Your task to perform on an android device: Add "dell xps" to the cart on target.com Image 0: 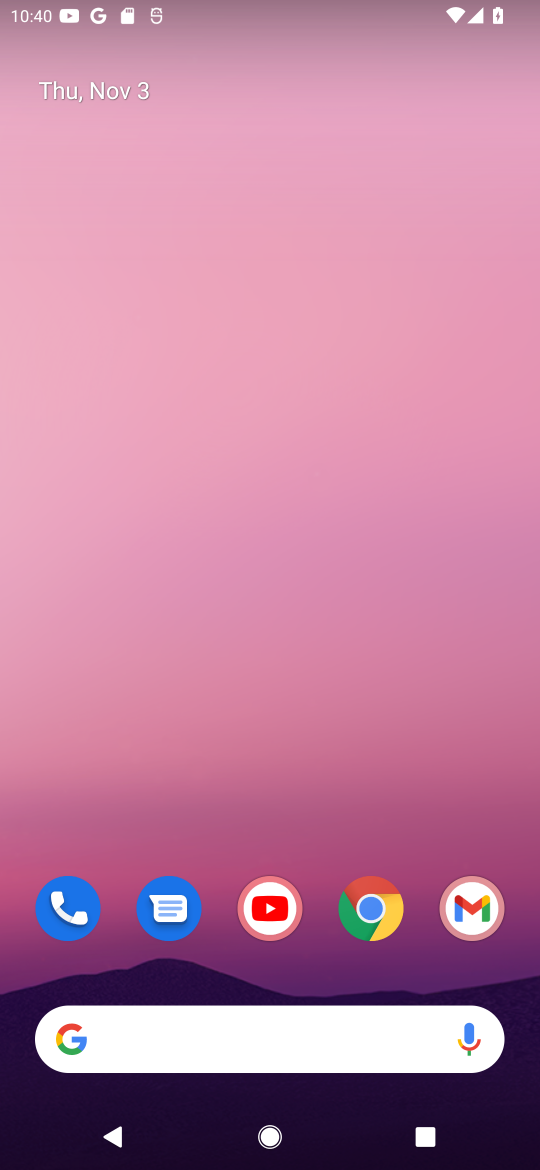
Step 0: click (358, 901)
Your task to perform on an android device: Add "dell xps" to the cart on target.com Image 1: 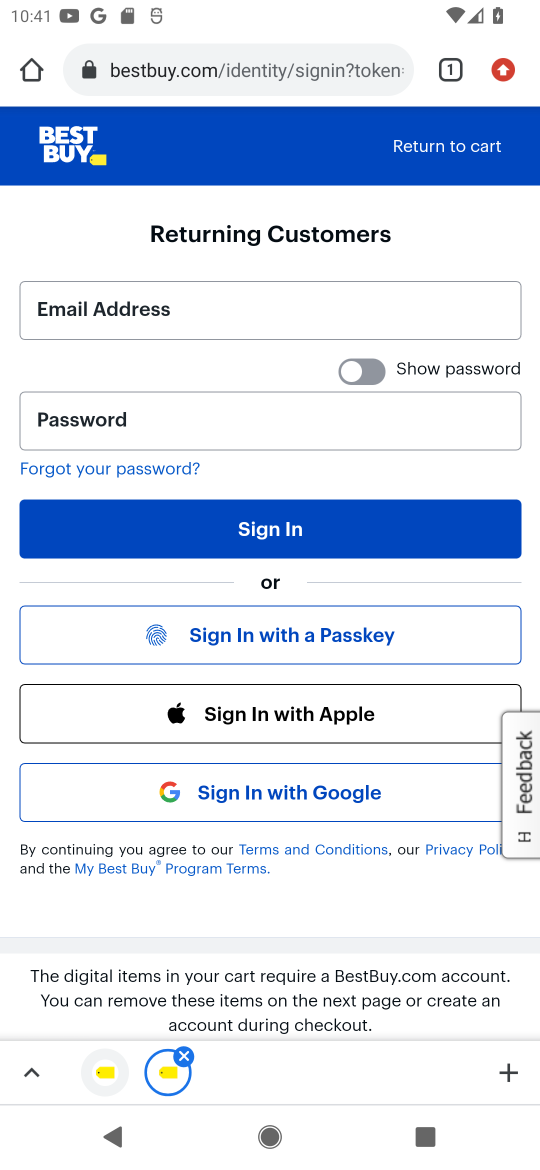
Step 1: click (336, 61)
Your task to perform on an android device: Add "dell xps" to the cart on target.com Image 2: 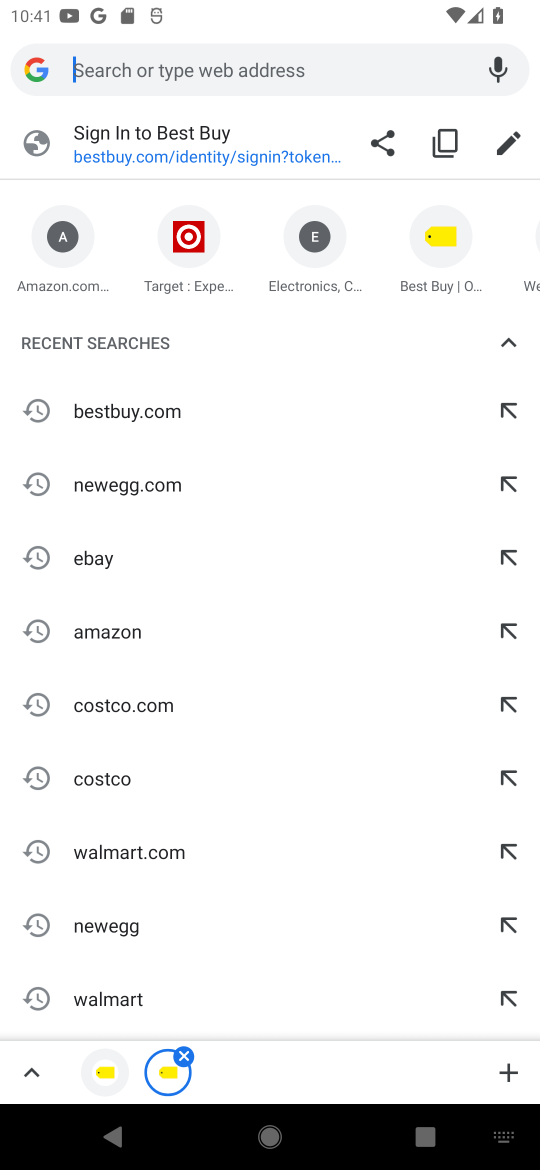
Step 2: click (187, 256)
Your task to perform on an android device: Add "dell xps" to the cart on target.com Image 3: 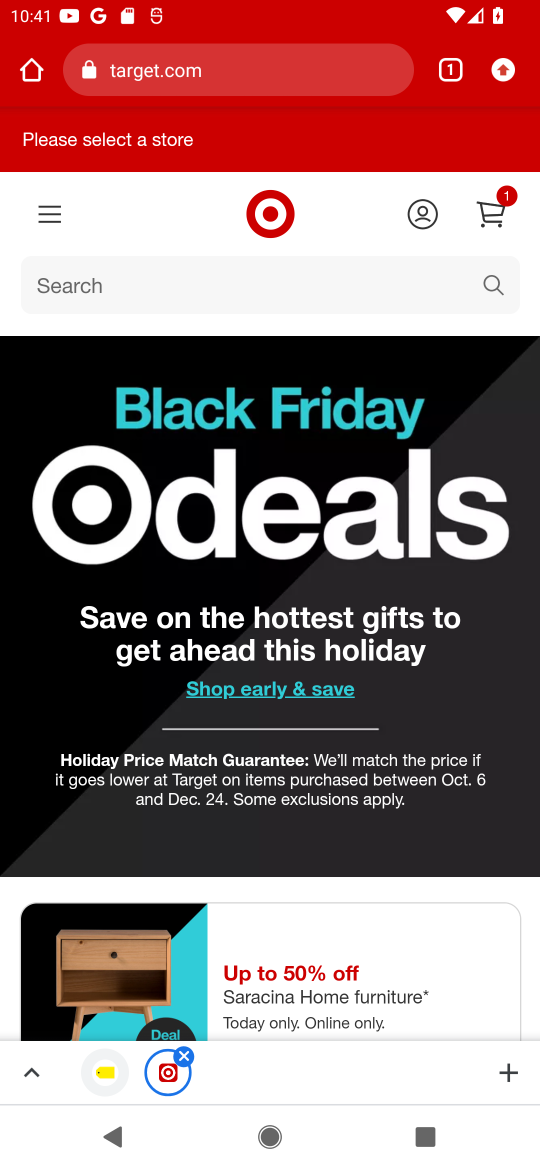
Step 3: click (487, 282)
Your task to perform on an android device: Add "dell xps" to the cart on target.com Image 4: 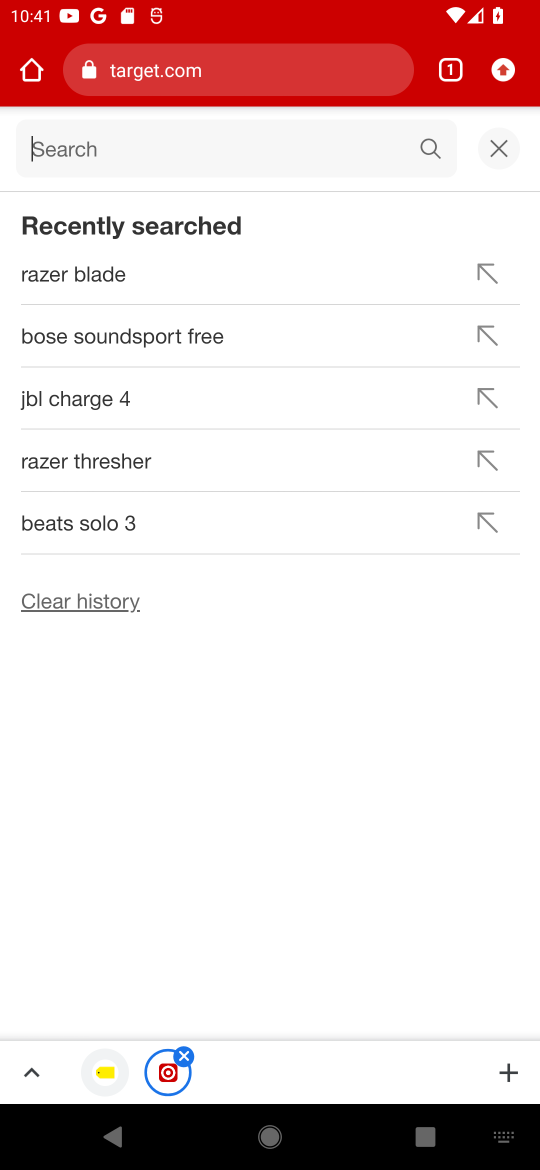
Step 4: type "dell xps"
Your task to perform on an android device: Add "dell xps" to the cart on target.com Image 5: 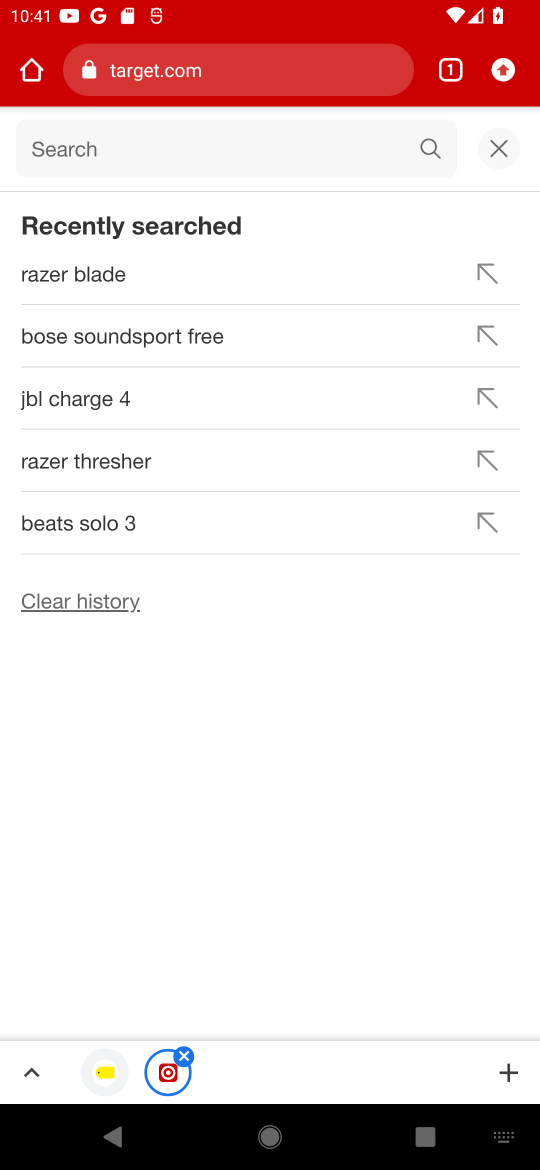
Step 5: press enter
Your task to perform on an android device: Add "dell xps" to the cart on target.com Image 6: 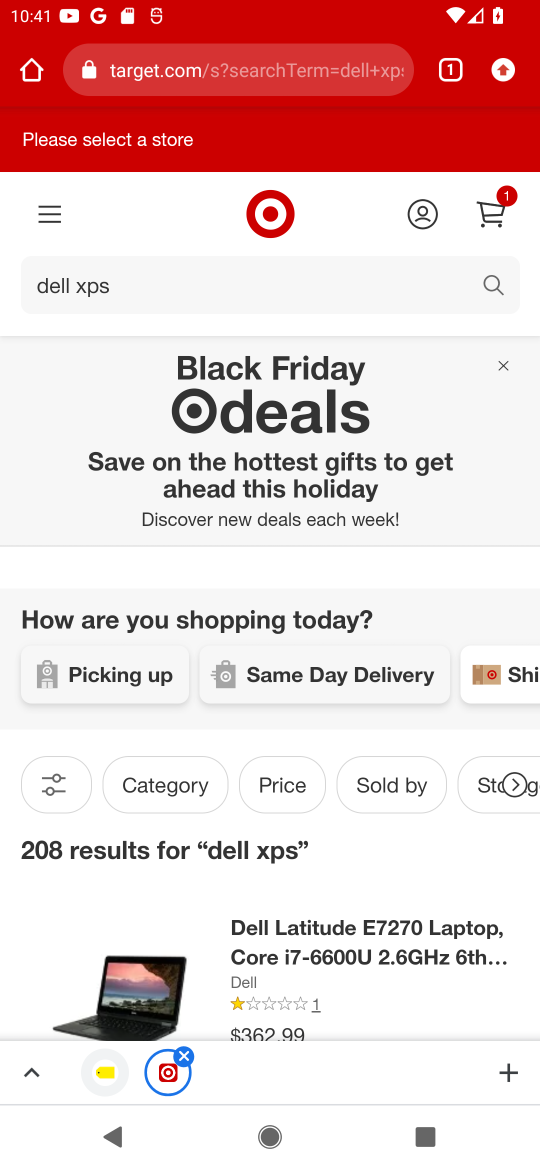
Step 6: drag from (358, 904) to (425, 331)
Your task to perform on an android device: Add "dell xps" to the cart on target.com Image 7: 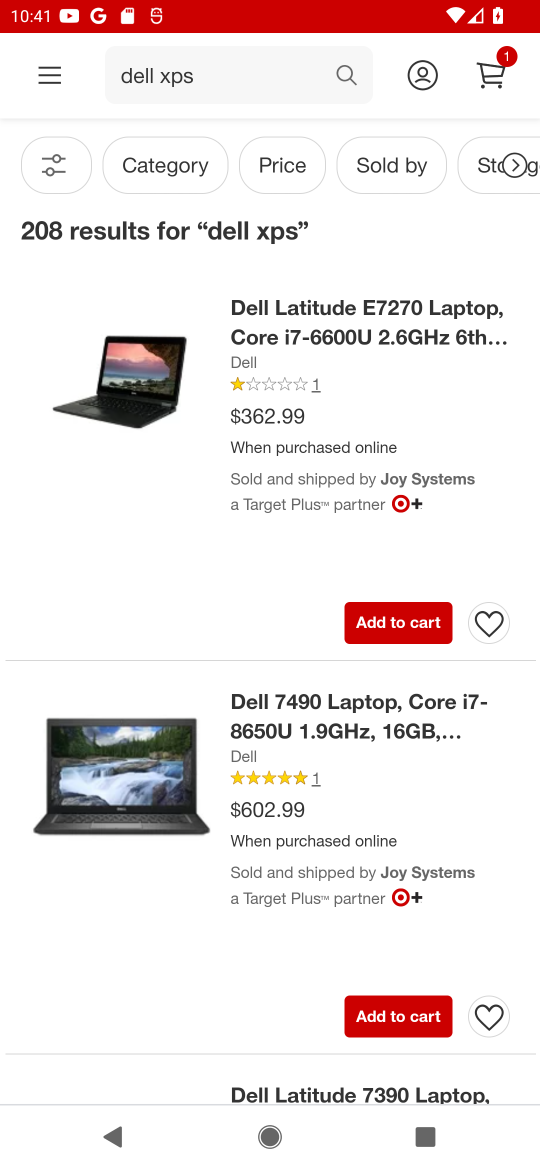
Step 7: click (90, 757)
Your task to perform on an android device: Add "dell xps" to the cart on target.com Image 8: 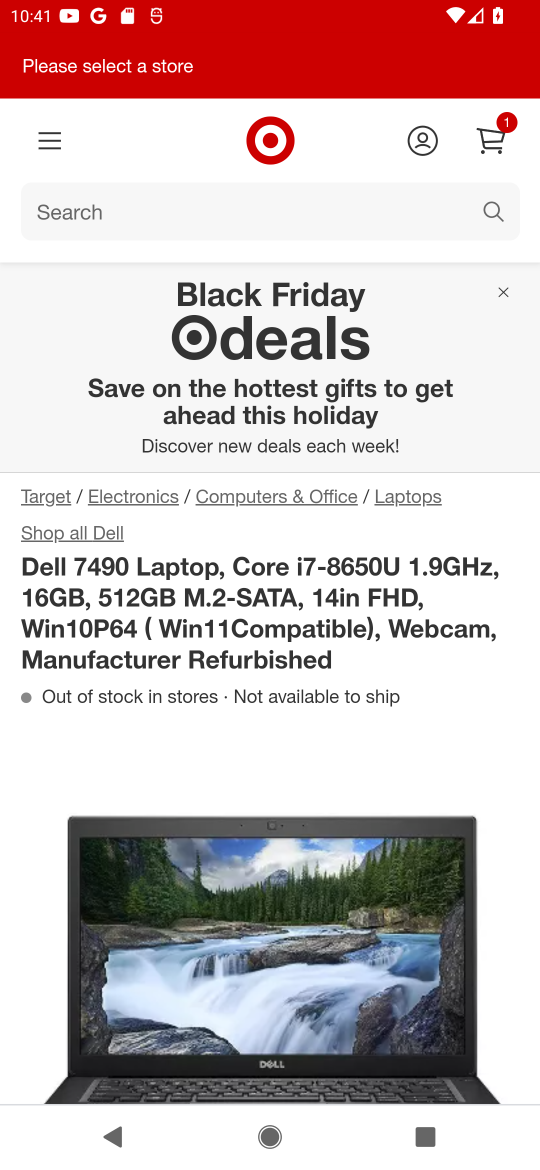
Step 8: drag from (429, 564) to (454, 317)
Your task to perform on an android device: Add "dell xps" to the cart on target.com Image 9: 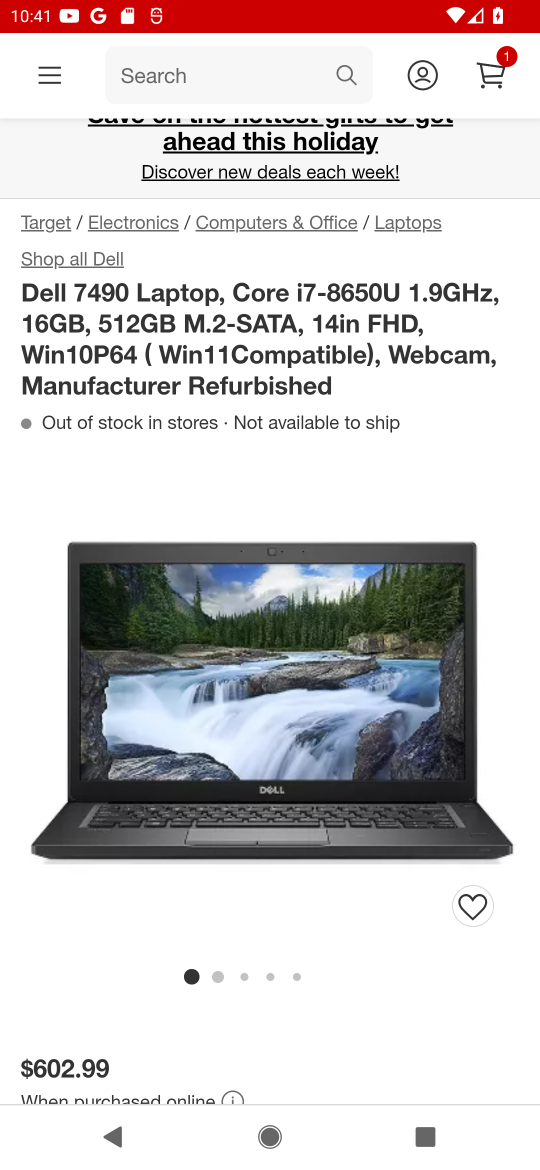
Step 9: drag from (389, 926) to (475, 366)
Your task to perform on an android device: Add "dell xps" to the cart on target.com Image 10: 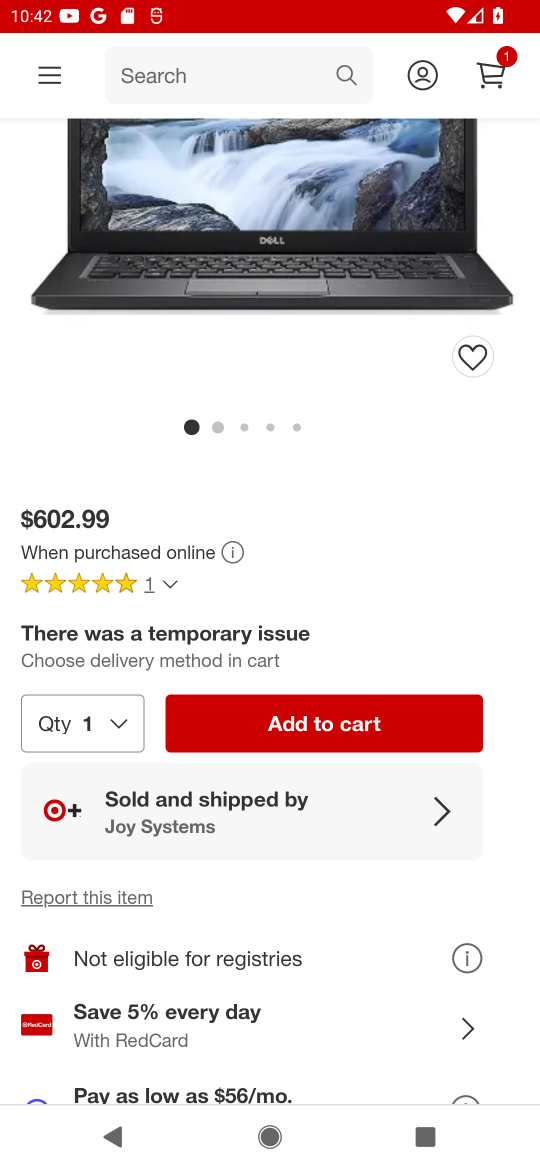
Step 10: click (404, 733)
Your task to perform on an android device: Add "dell xps" to the cart on target.com Image 11: 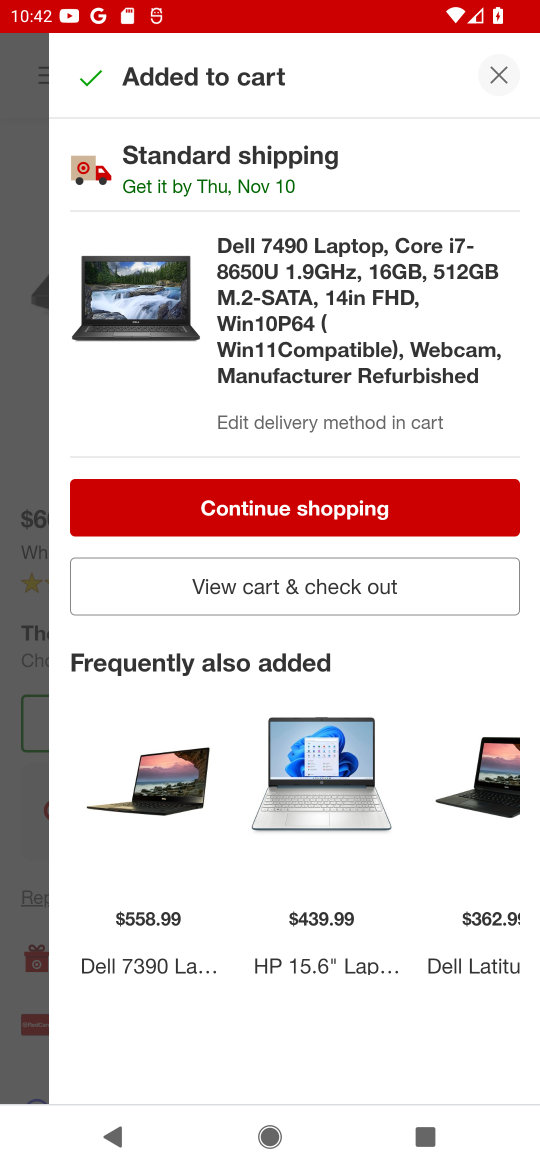
Step 11: task complete